Your task to perform on an android device: How much does a 3 bedroom apartment rent for in Chicago? Image 0: 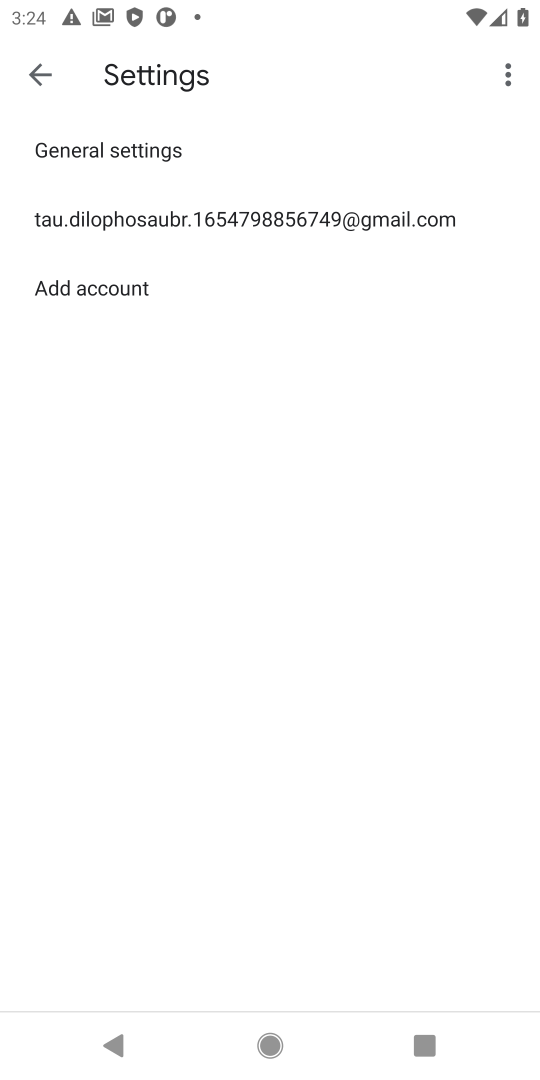
Step 0: press home button
Your task to perform on an android device: How much does a 3 bedroom apartment rent for in Chicago? Image 1: 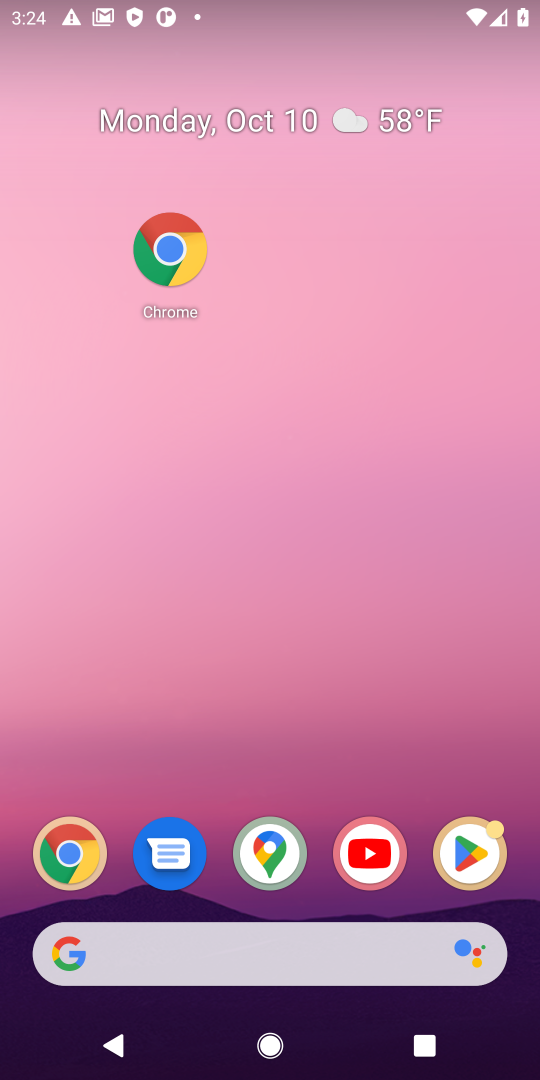
Step 1: click (72, 856)
Your task to perform on an android device: How much does a 3 bedroom apartment rent for in Chicago? Image 2: 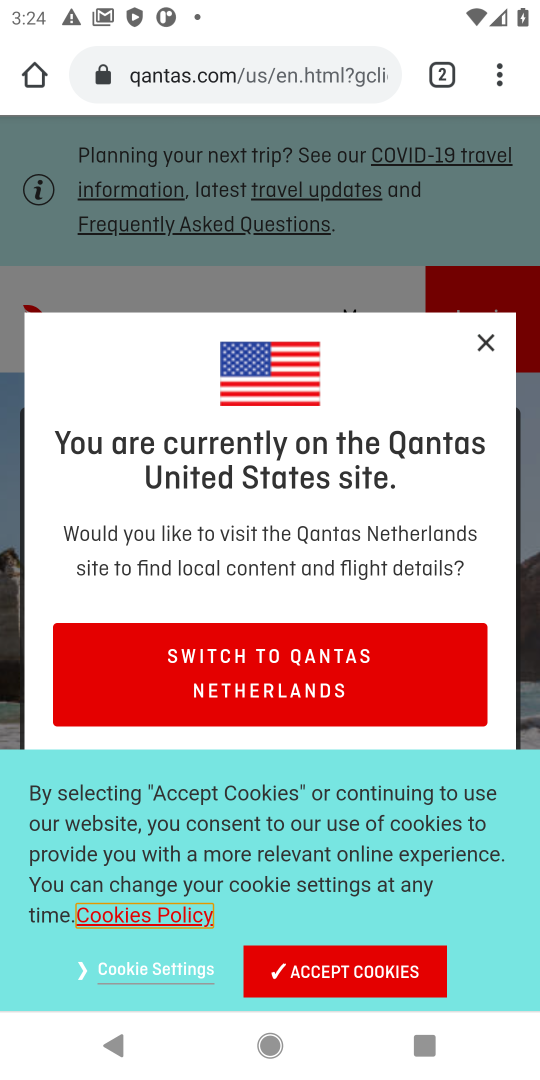
Step 2: click (349, 78)
Your task to perform on an android device: How much does a 3 bedroom apartment rent for in Chicago? Image 3: 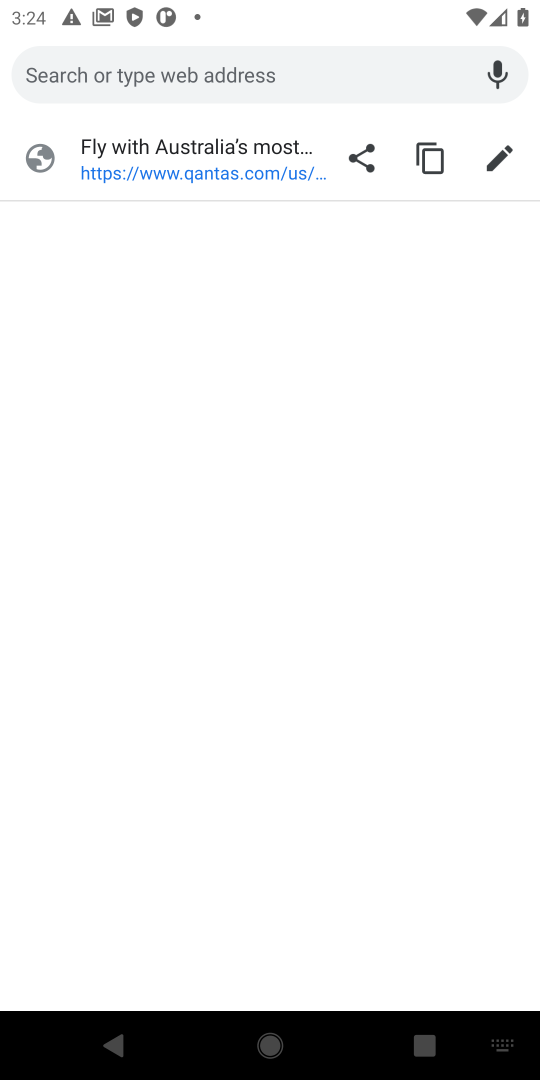
Step 3: type "How much does a 3 bedroom apartment rent for in Chicago?"
Your task to perform on an android device: How much does a 3 bedroom apartment rent for in Chicago? Image 4: 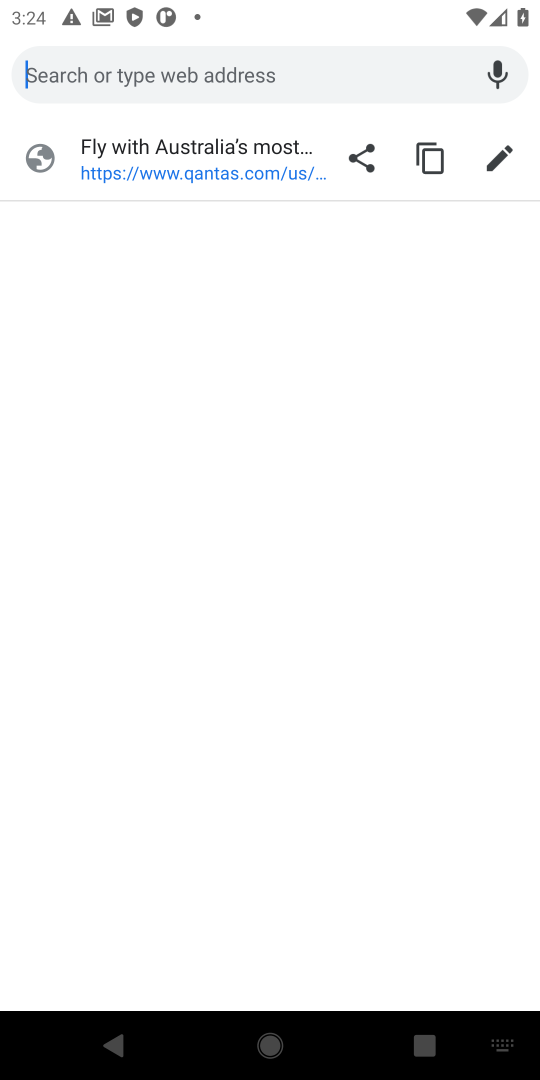
Step 4: click (277, 82)
Your task to perform on an android device: How much does a 3 bedroom apartment rent for in Chicago? Image 5: 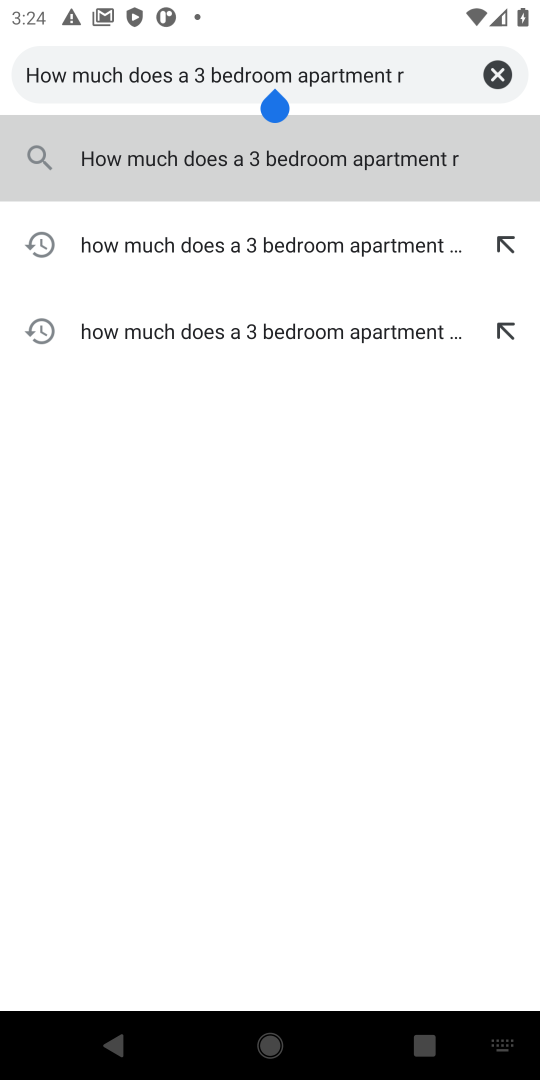
Step 5: click (342, 162)
Your task to perform on an android device: How much does a 3 bedroom apartment rent for in Chicago? Image 6: 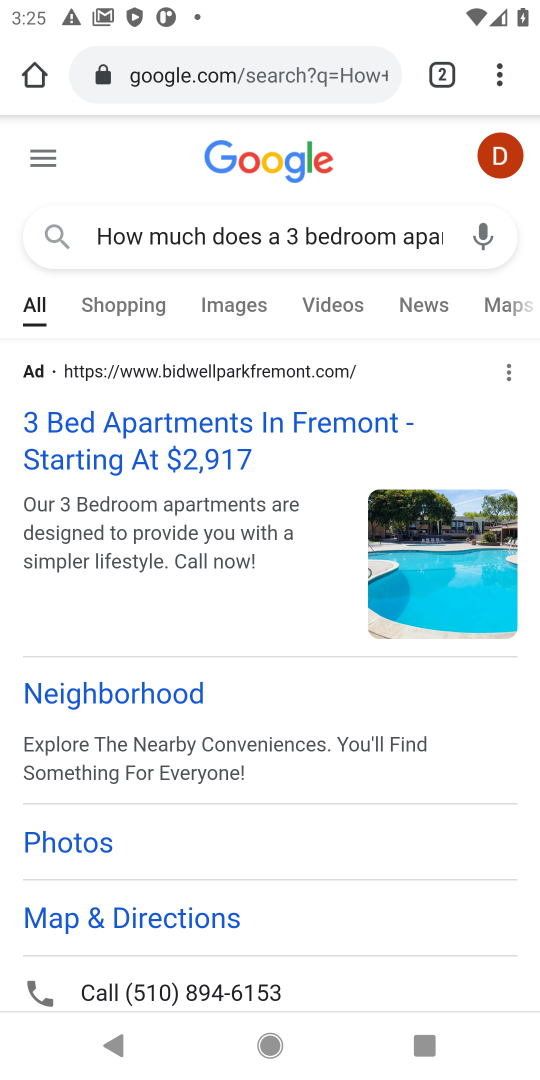
Step 6: task complete